Your task to perform on an android device: Turn off the flashlight Image 0: 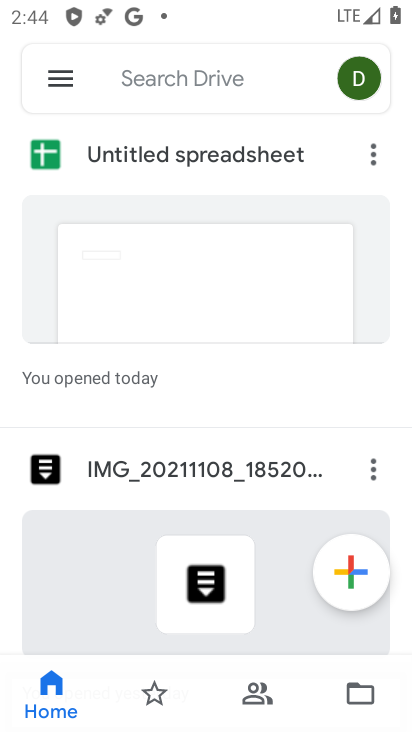
Step 0: press home button
Your task to perform on an android device: Turn off the flashlight Image 1: 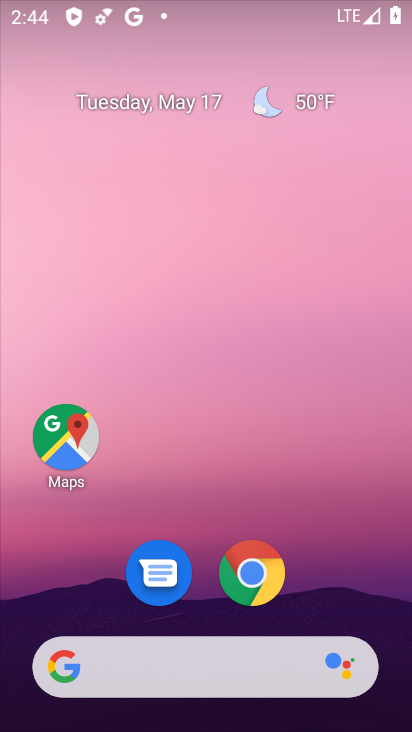
Step 1: drag from (337, 612) to (297, 174)
Your task to perform on an android device: Turn off the flashlight Image 2: 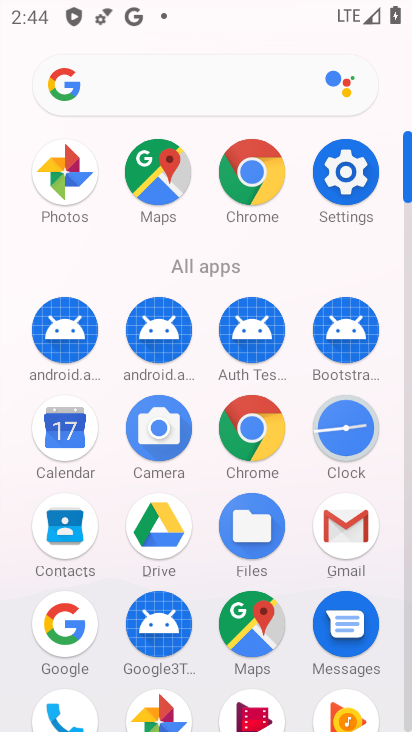
Step 2: click (354, 194)
Your task to perform on an android device: Turn off the flashlight Image 3: 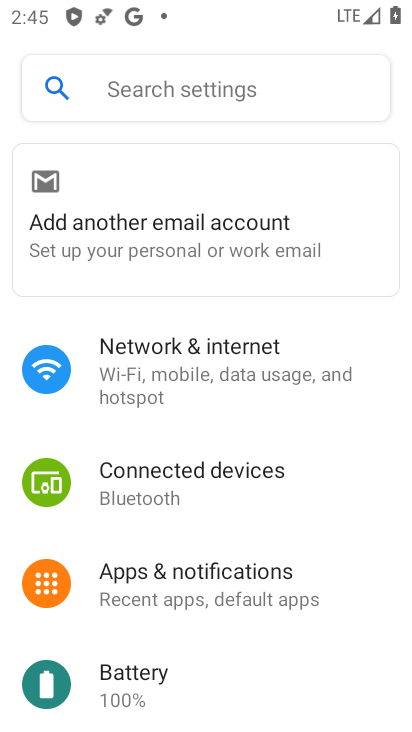
Step 3: drag from (225, 553) to (329, 171)
Your task to perform on an android device: Turn off the flashlight Image 4: 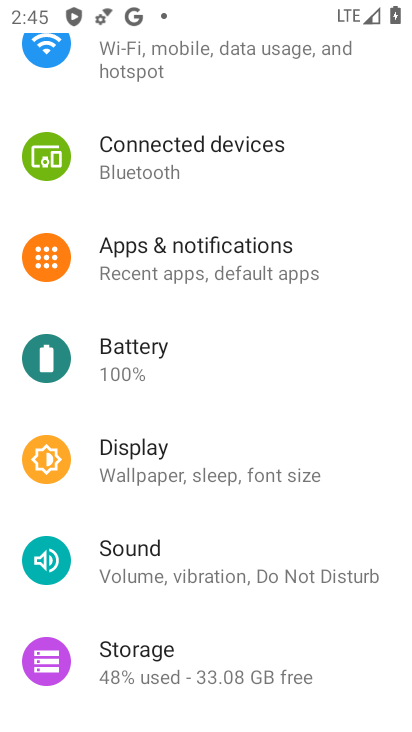
Step 4: drag from (189, 514) to (326, 239)
Your task to perform on an android device: Turn off the flashlight Image 5: 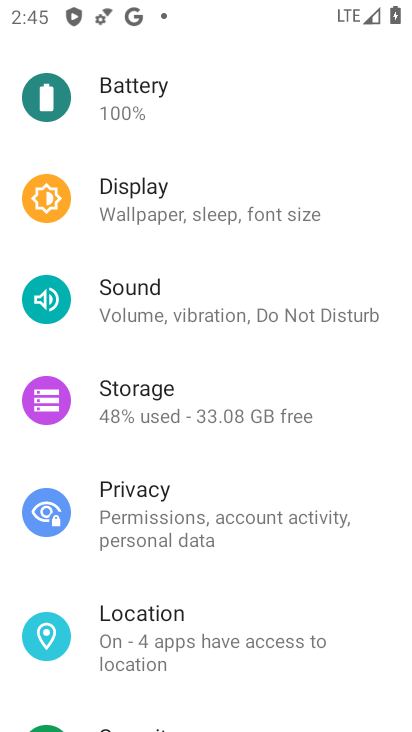
Step 5: drag from (193, 501) to (196, 716)
Your task to perform on an android device: Turn off the flashlight Image 6: 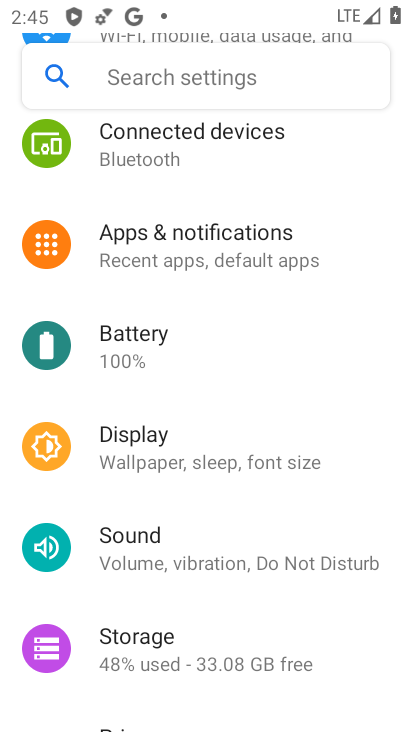
Step 6: drag from (201, 346) to (200, 599)
Your task to perform on an android device: Turn off the flashlight Image 7: 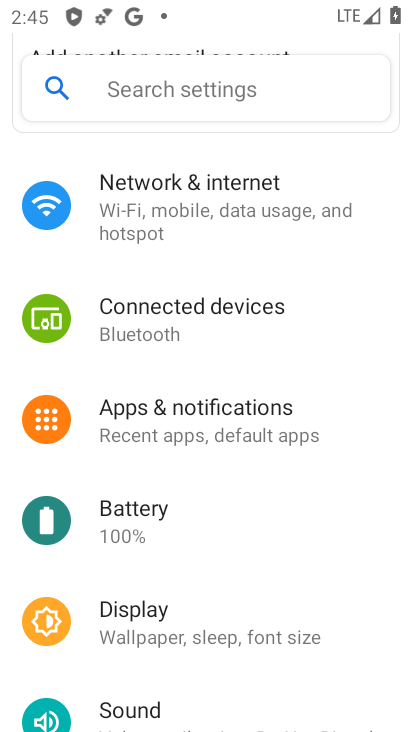
Step 7: click (170, 607)
Your task to perform on an android device: Turn off the flashlight Image 8: 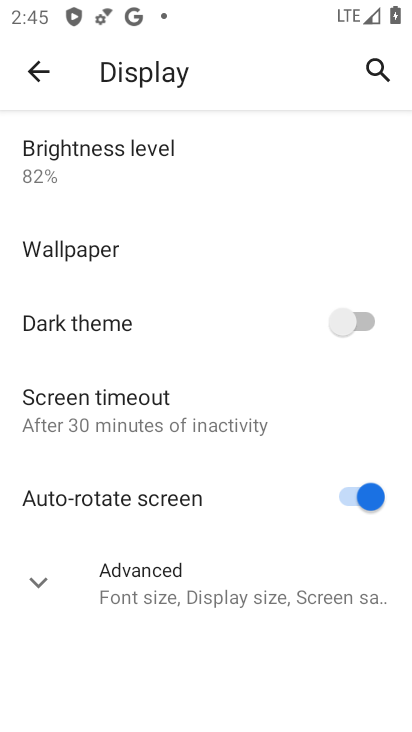
Step 8: task complete